Your task to perform on an android device: change your default location settings in chrome Image 0: 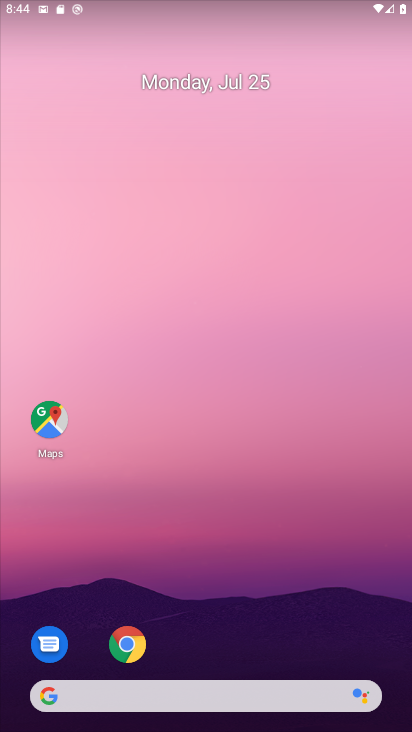
Step 0: drag from (219, 673) to (74, 25)
Your task to perform on an android device: change your default location settings in chrome Image 1: 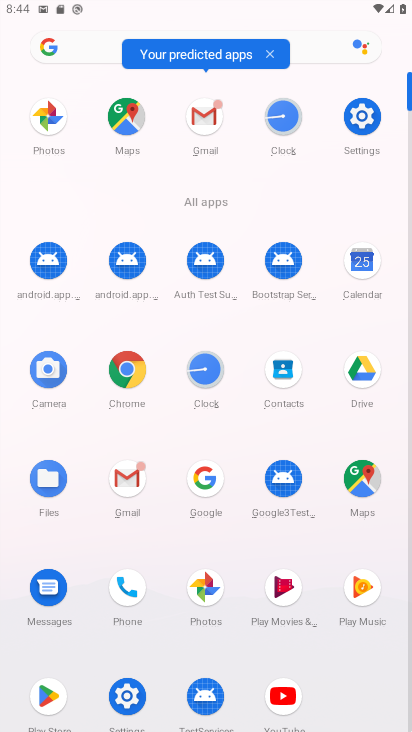
Step 1: click (120, 384)
Your task to perform on an android device: change your default location settings in chrome Image 2: 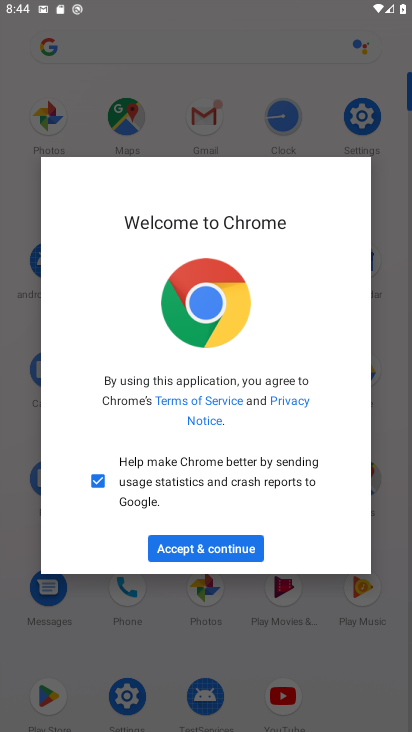
Step 2: click (244, 567)
Your task to perform on an android device: change your default location settings in chrome Image 3: 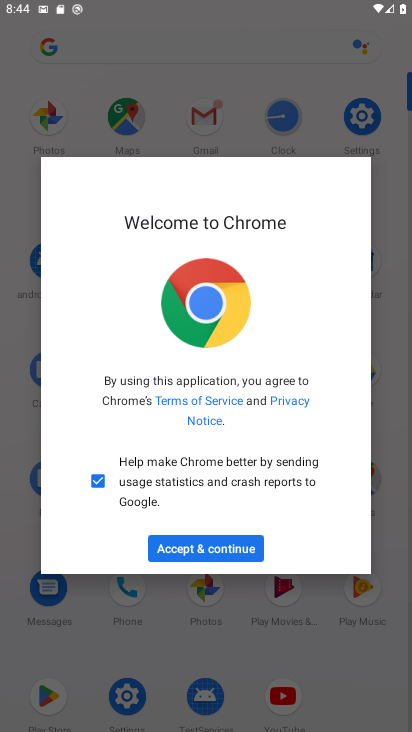
Step 3: click (233, 552)
Your task to perform on an android device: change your default location settings in chrome Image 4: 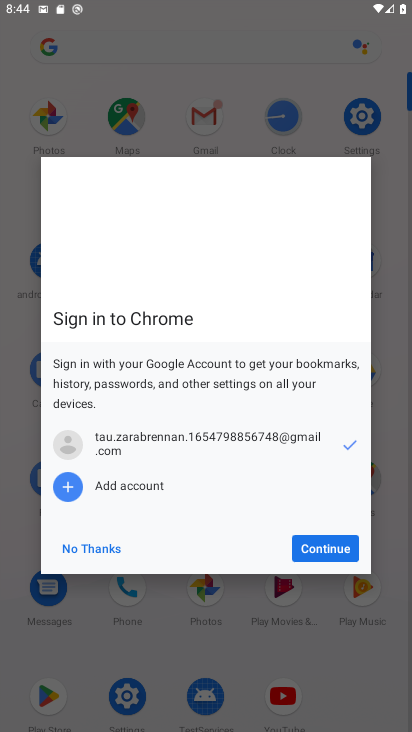
Step 4: click (329, 539)
Your task to perform on an android device: change your default location settings in chrome Image 5: 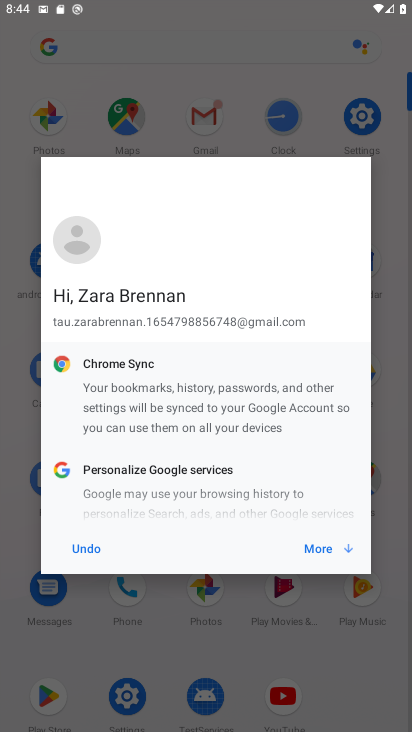
Step 5: click (329, 539)
Your task to perform on an android device: change your default location settings in chrome Image 6: 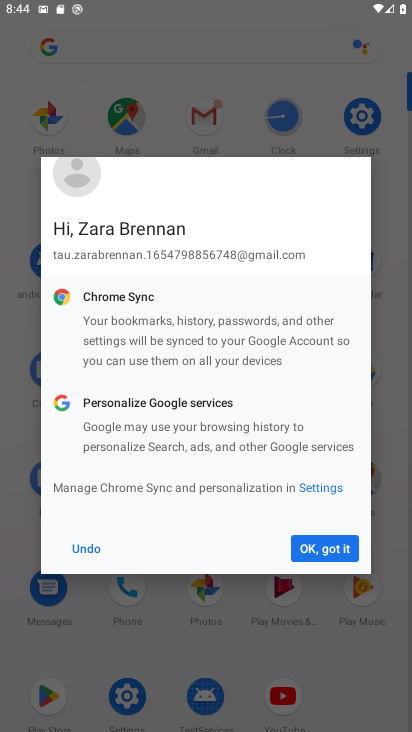
Step 6: click (329, 539)
Your task to perform on an android device: change your default location settings in chrome Image 7: 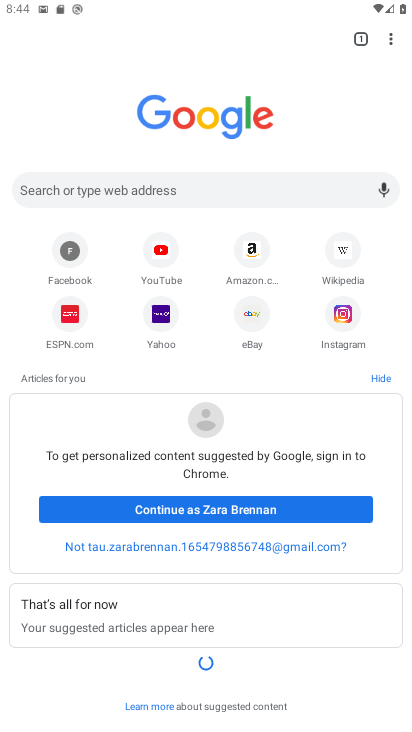
Step 7: click (393, 45)
Your task to perform on an android device: change your default location settings in chrome Image 8: 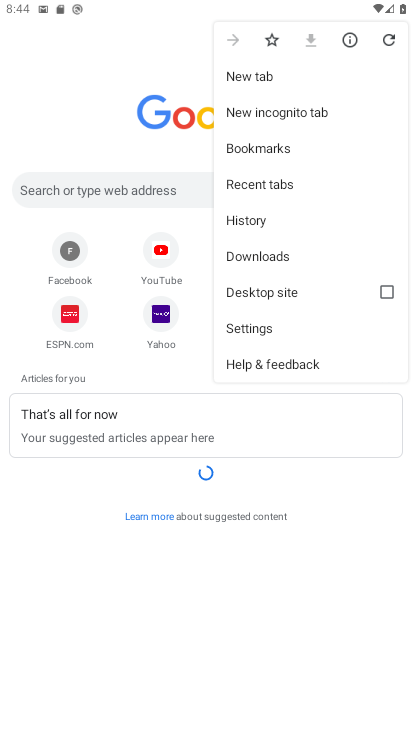
Step 8: click (252, 321)
Your task to perform on an android device: change your default location settings in chrome Image 9: 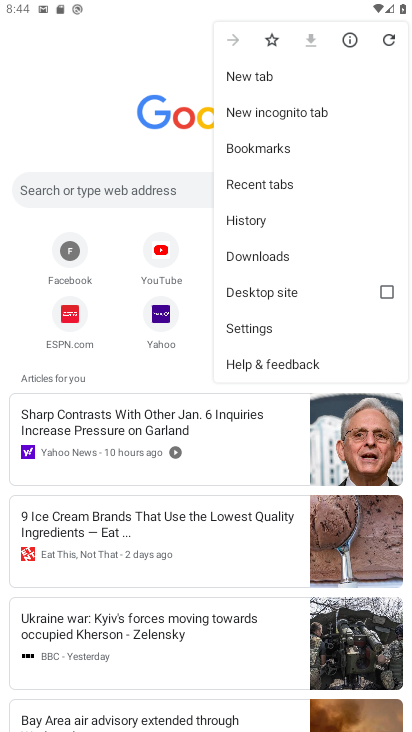
Step 9: click (245, 330)
Your task to perform on an android device: change your default location settings in chrome Image 10: 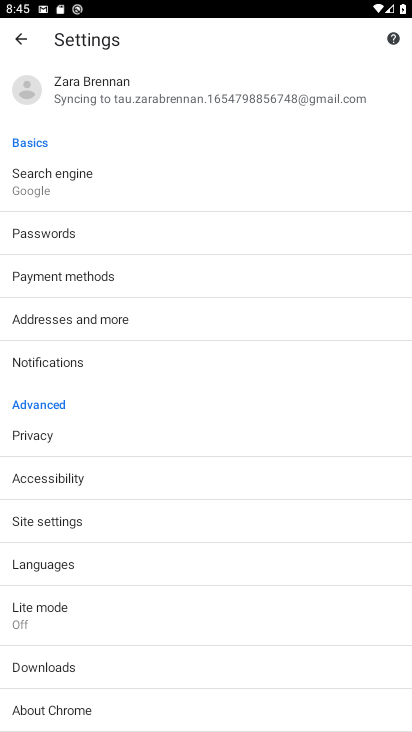
Step 10: click (40, 527)
Your task to perform on an android device: change your default location settings in chrome Image 11: 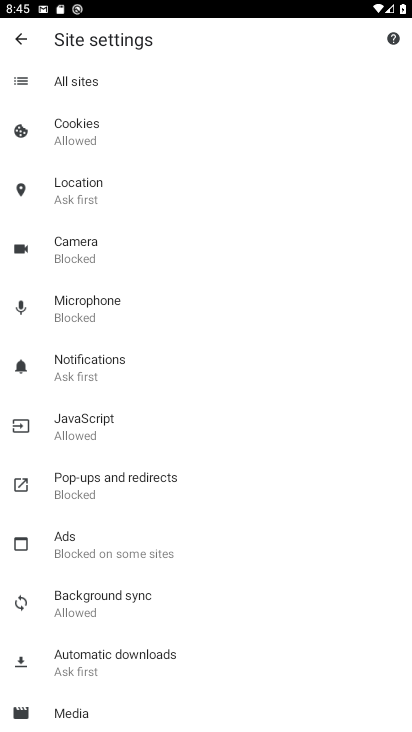
Step 11: click (54, 183)
Your task to perform on an android device: change your default location settings in chrome Image 12: 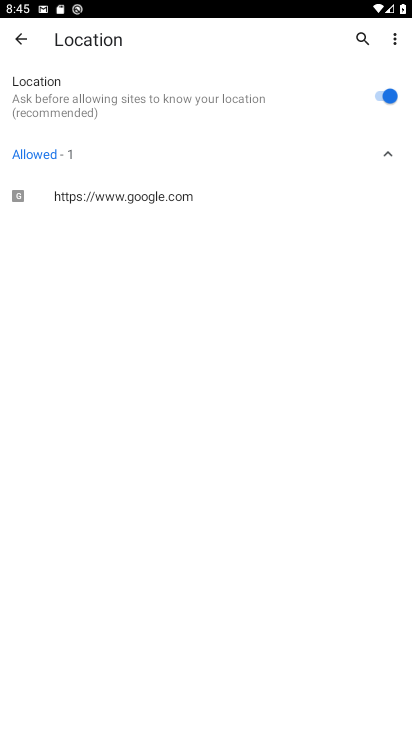
Step 12: click (370, 101)
Your task to perform on an android device: change your default location settings in chrome Image 13: 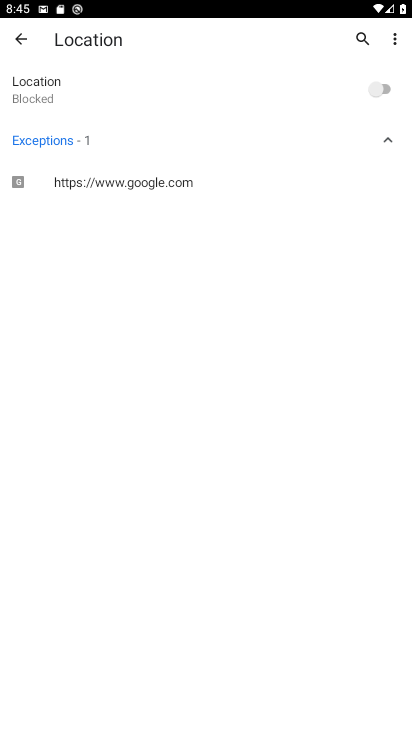
Step 13: task complete